Your task to perform on an android device: turn on improve location accuracy Image 0: 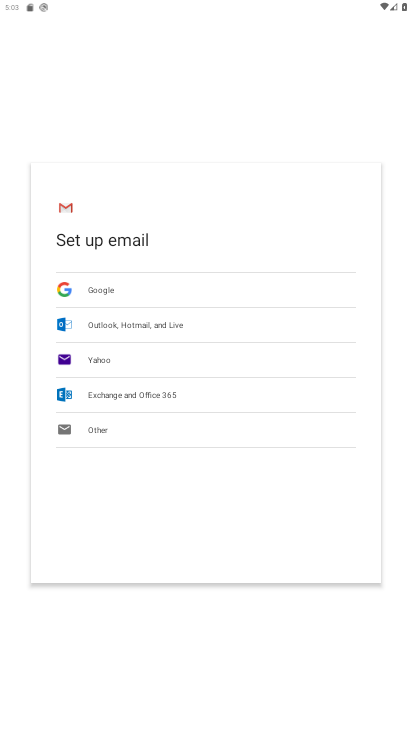
Step 0: press home button
Your task to perform on an android device: turn on improve location accuracy Image 1: 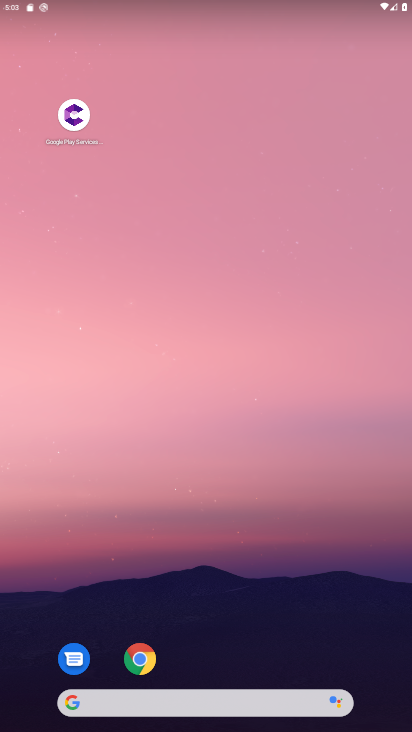
Step 1: drag from (237, 556) to (181, 122)
Your task to perform on an android device: turn on improve location accuracy Image 2: 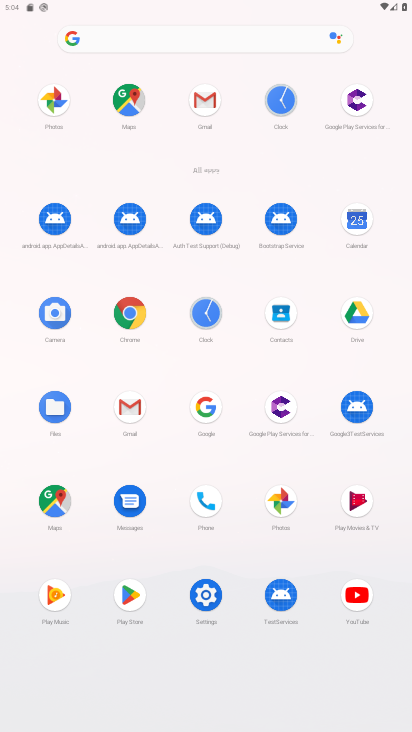
Step 2: click (205, 595)
Your task to perform on an android device: turn on improve location accuracy Image 3: 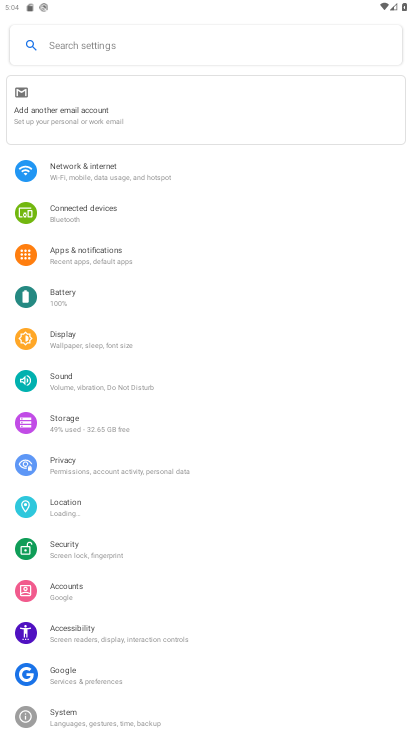
Step 3: drag from (155, 689) to (123, 411)
Your task to perform on an android device: turn on improve location accuracy Image 4: 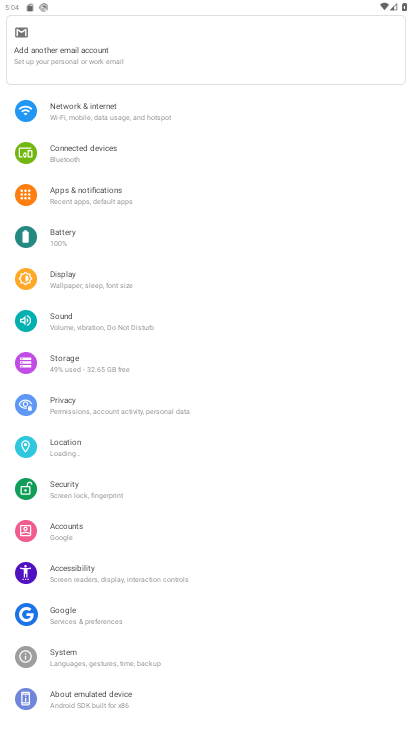
Step 4: click (120, 427)
Your task to perform on an android device: turn on improve location accuracy Image 5: 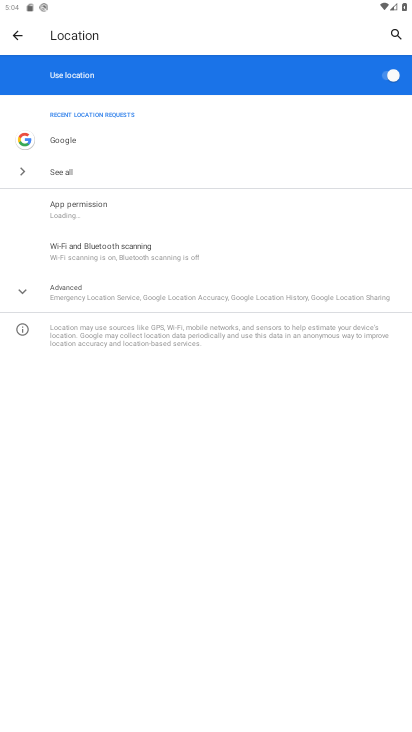
Step 5: click (314, 292)
Your task to perform on an android device: turn on improve location accuracy Image 6: 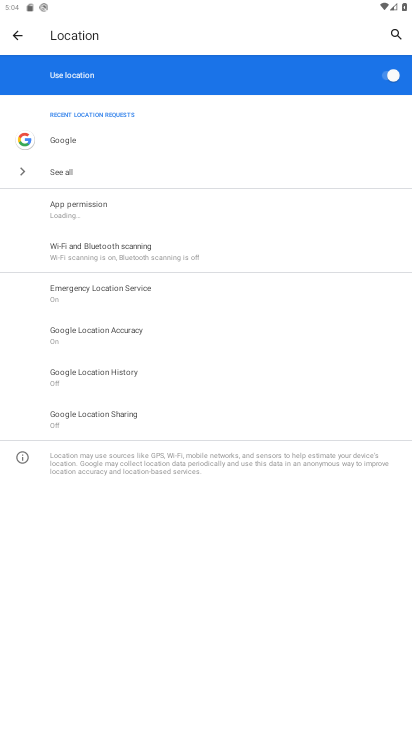
Step 6: click (174, 335)
Your task to perform on an android device: turn on improve location accuracy Image 7: 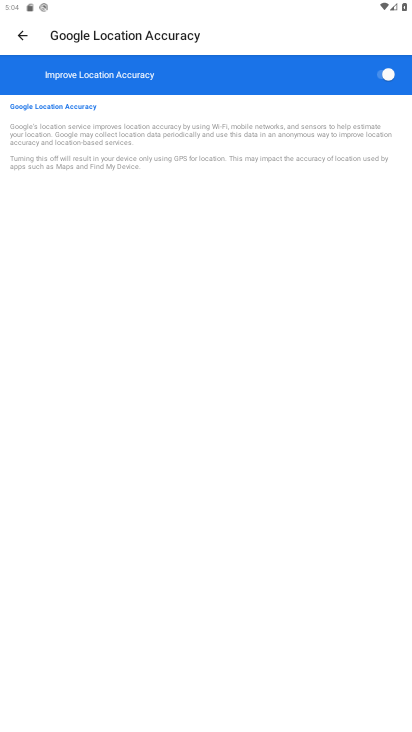
Step 7: task complete